Your task to perform on an android device: Open Android settings Image 0: 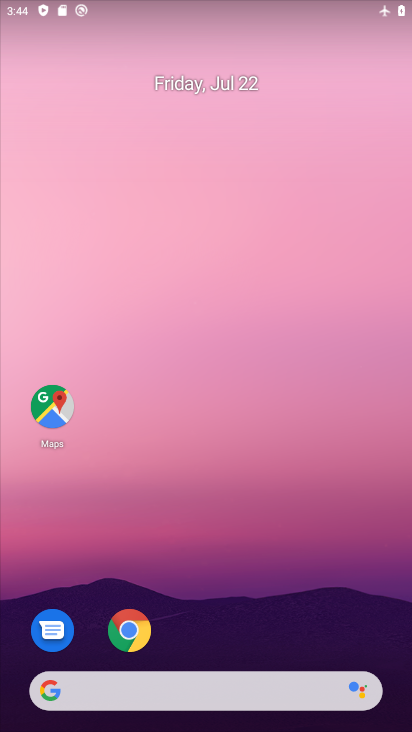
Step 0: drag from (219, 599) to (204, 200)
Your task to perform on an android device: Open Android settings Image 1: 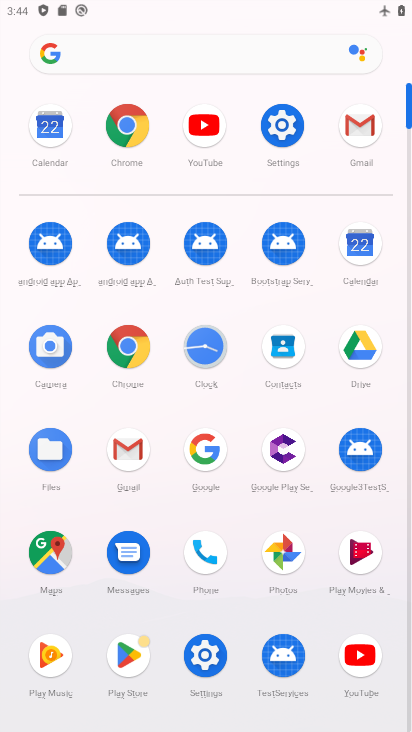
Step 1: click (210, 653)
Your task to perform on an android device: Open Android settings Image 2: 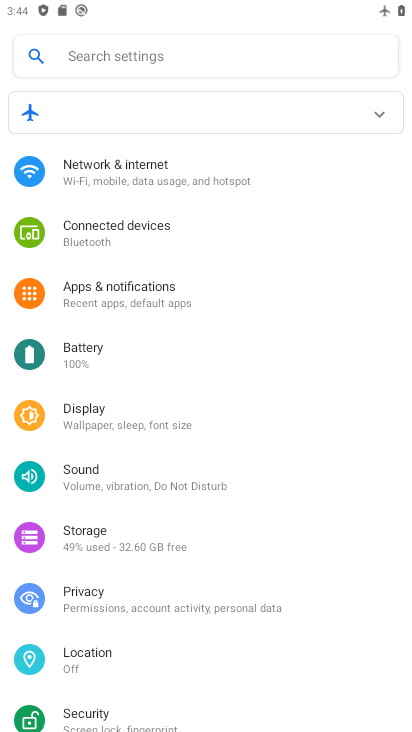
Step 2: drag from (187, 616) to (214, 146)
Your task to perform on an android device: Open Android settings Image 3: 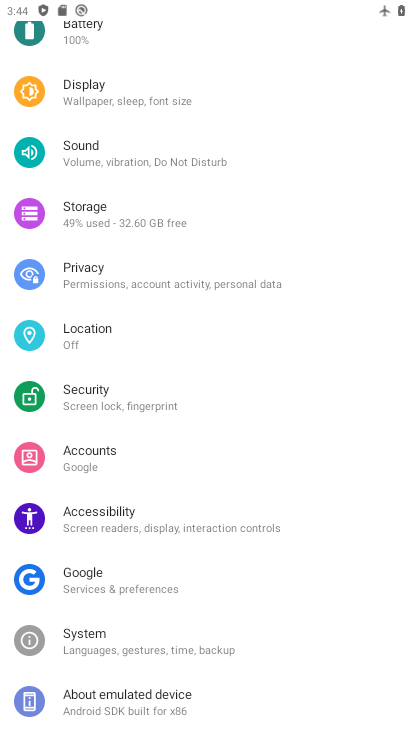
Step 3: click (141, 697)
Your task to perform on an android device: Open Android settings Image 4: 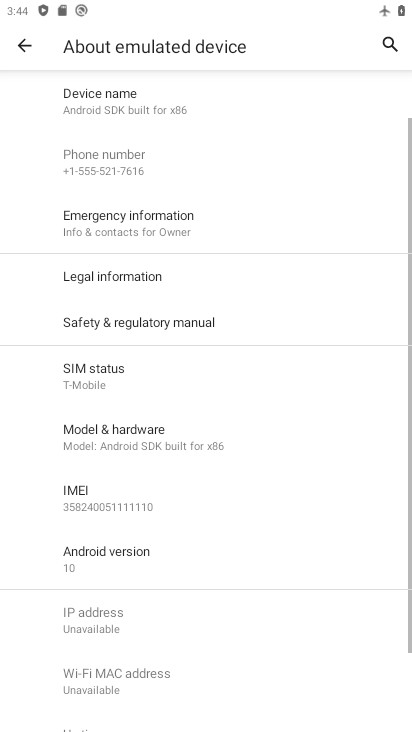
Step 4: click (115, 693)
Your task to perform on an android device: Open Android settings Image 5: 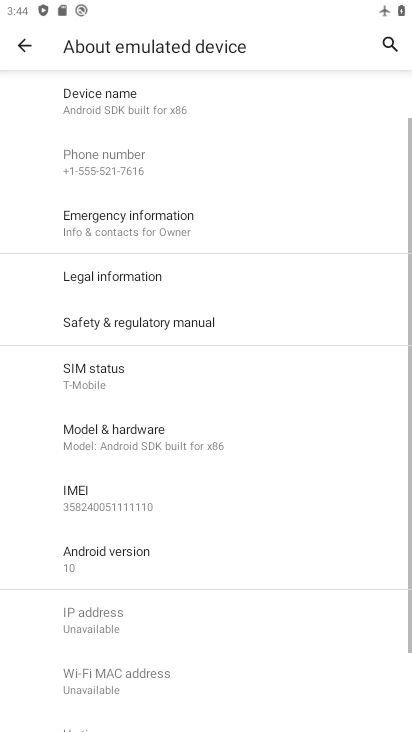
Step 5: click (113, 554)
Your task to perform on an android device: Open Android settings Image 6: 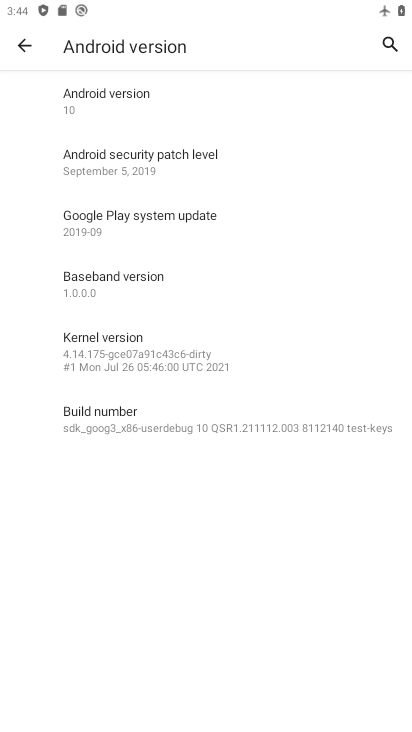
Step 6: task complete